Your task to perform on an android device: Open Chrome and go to the settings page Image 0: 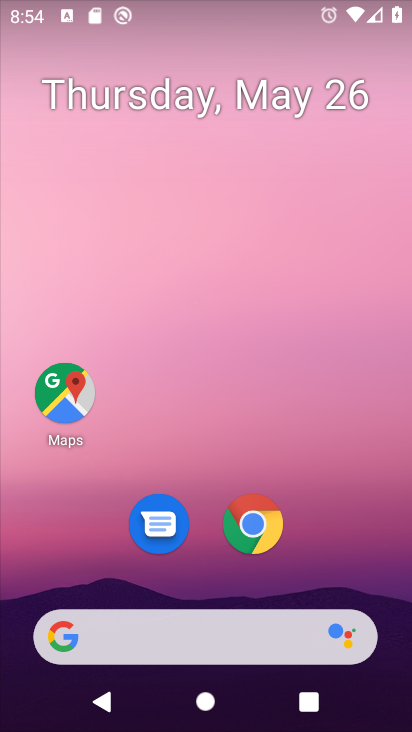
Step 0: click (258, 529)
Your task to perform on an android device: Open Chrome and go to the settings page Image 1: 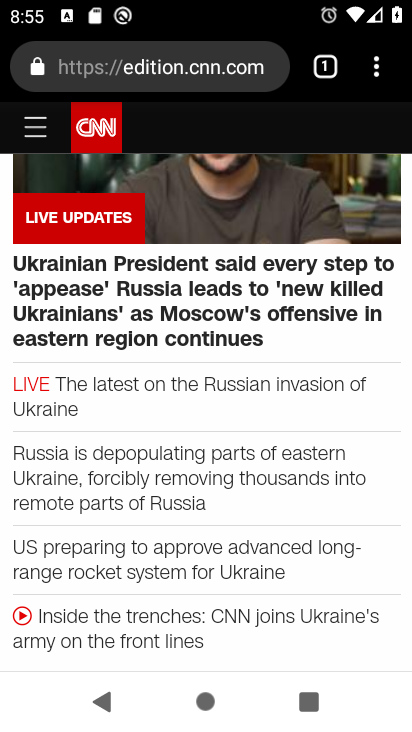
Step 1: click (381, 65)
Your task to perform on an android device: Open Chrome and go to the settings page Image 2: 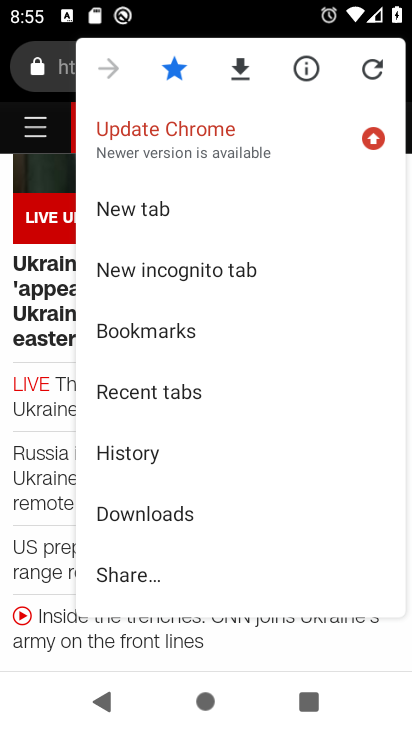
Step 2: drag from (249, 457) to (233, 169)
Your task to perform on an android device: Open Chrome and go to the settings page Image 3: 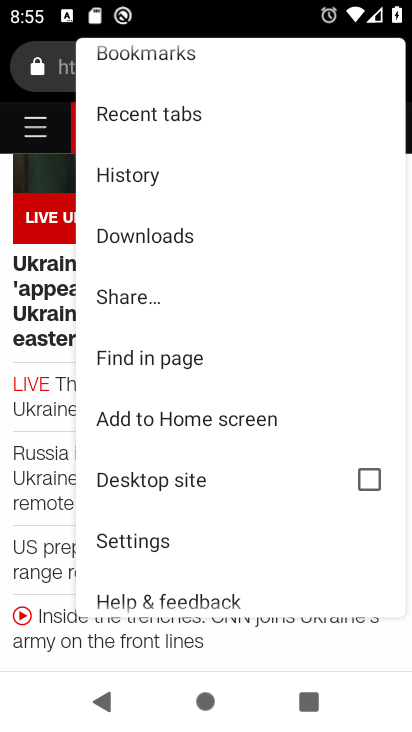
Step 3: click (200, 547)
Your task to perform on an android device: Open Chrome and go to the settings page Image 4: 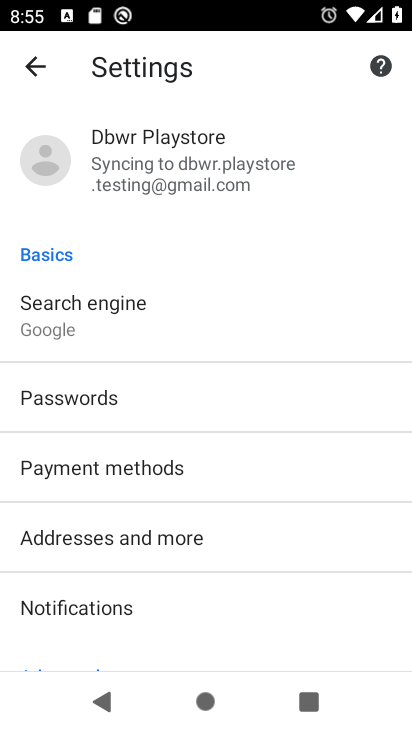
Step 4: task complete